Your task to perform on an android device: open the mobile data screen to see how much data has been used Image 0: 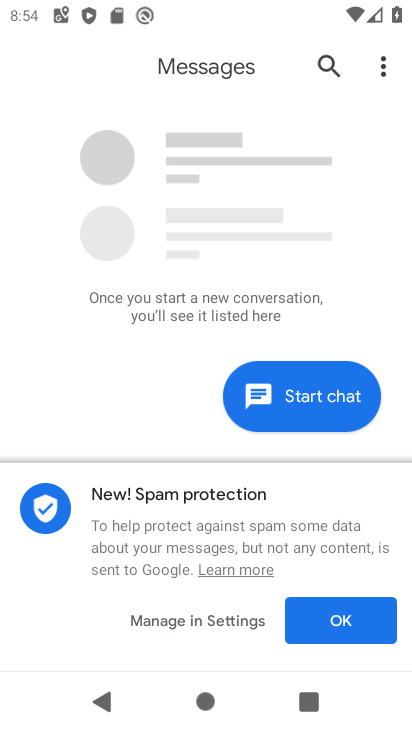
Step 0: press home button
Your task to perform on an android device: open the mobile data screen to see how much data has been used Image 1: 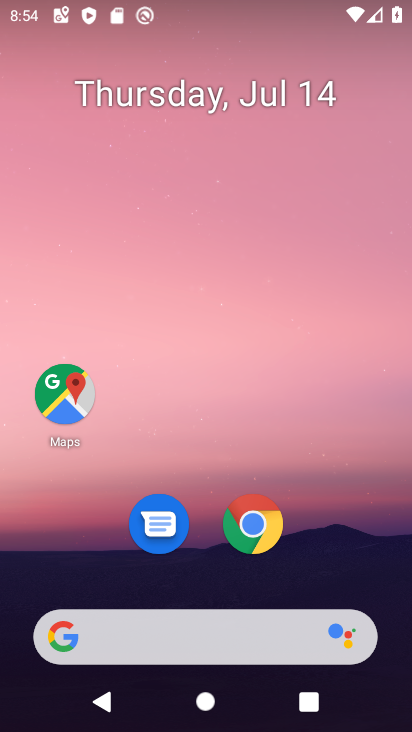
Step 1: drag from (206, 472) to (270, 20)
Your task to perform on an android device: open the mobile data screen to see how much data has been used Image 2: 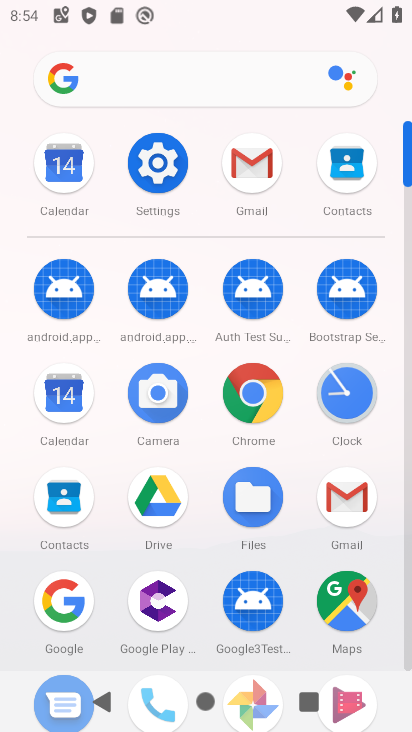
Step 2: click (159, 170)
Your task to perform on an android device: open the mobile data screen to see how much data has been used Image 3: 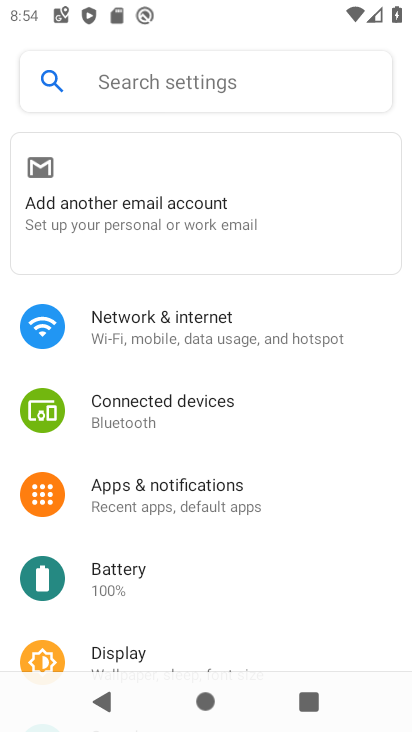
Step 3: click (186, 317)
Your task to perform on an android device: open the mobile data screen to see how much data has been used Image 4: 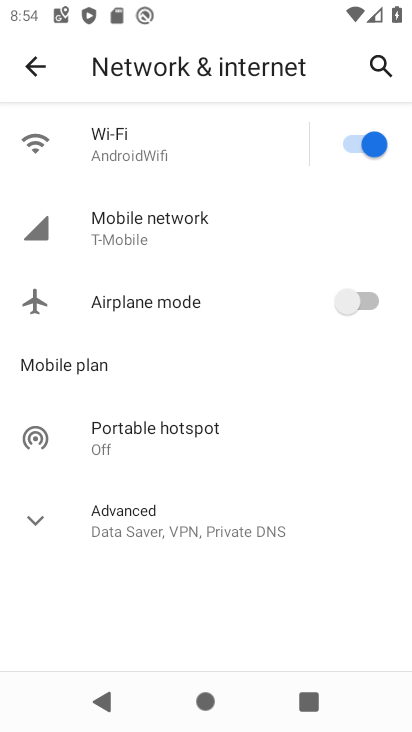
Step 4: click (194, 236)
Your task to perform on an android device: open the mobile data screen to see how much data has been used Image 5: 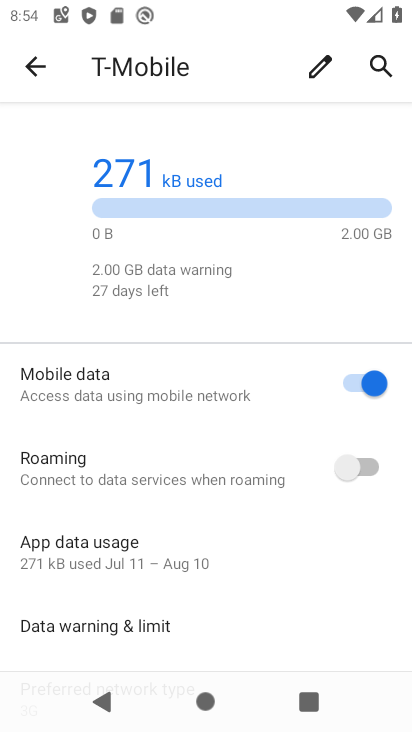
Step 5: task complete